Your task to perform on an android device: Show me recent news Image 0: 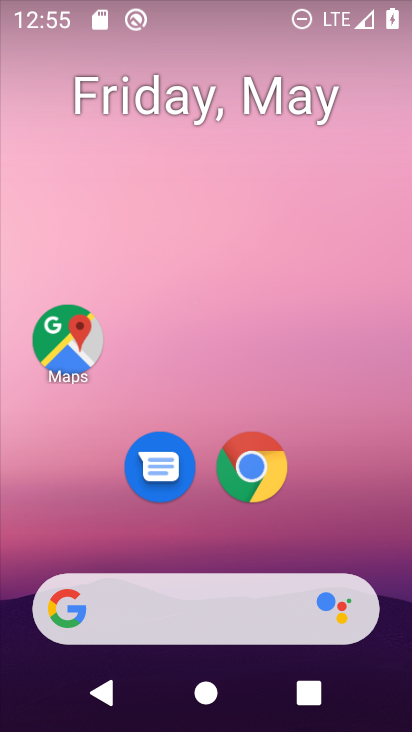
Step 0: drag from (279, 569) to (333, 34)
Your task to perform on an android device: Show me recent news Image 1: 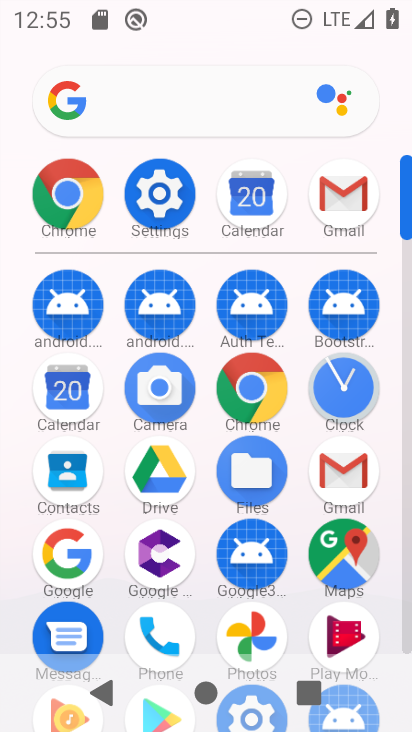
Step 1: click (251, 386)
Your task to perform on an android device: Show me recent news Image 2: 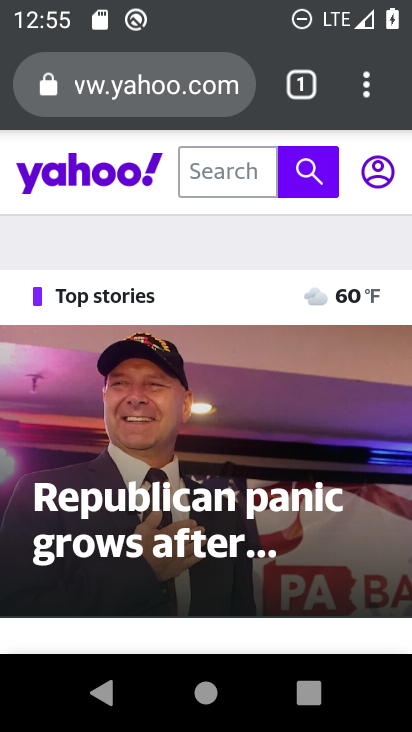
Step 2: type "recent news"
Your task to perform on an android device: Show me recent news Image 3: 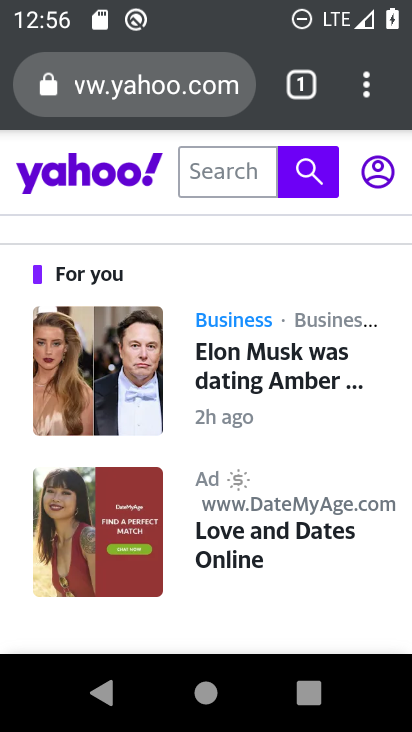
Step 3: type "recent news"
Your task to perform on an android device: Show me recent news Image 4: 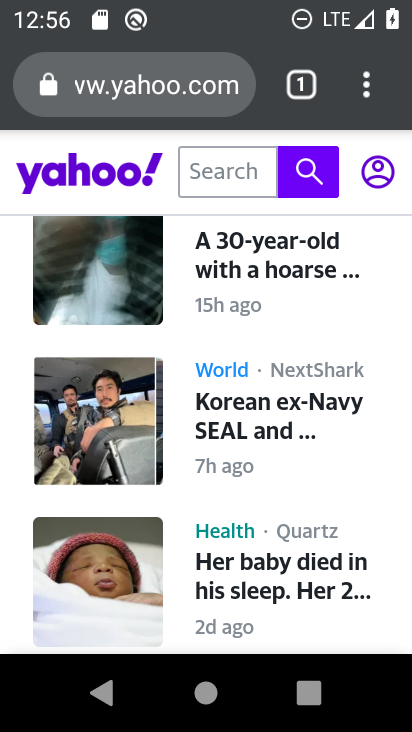
Step 4: click (110, 99)
Your task to perform on an android device: Show me recent news Image 5: 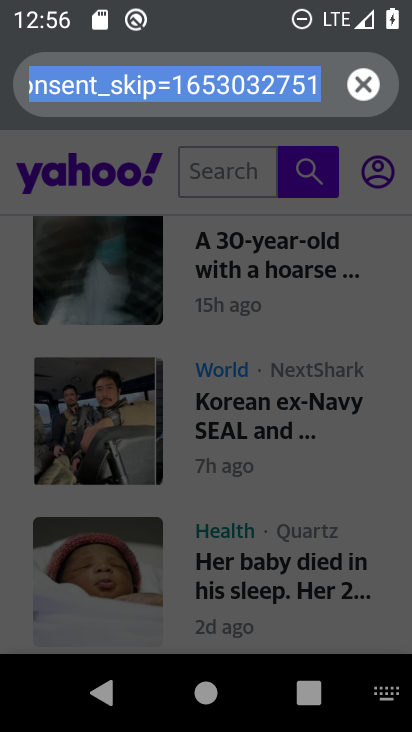
Step 5: click (370, 86)
Your task to perform on an android device: Show me recent news Image 6: 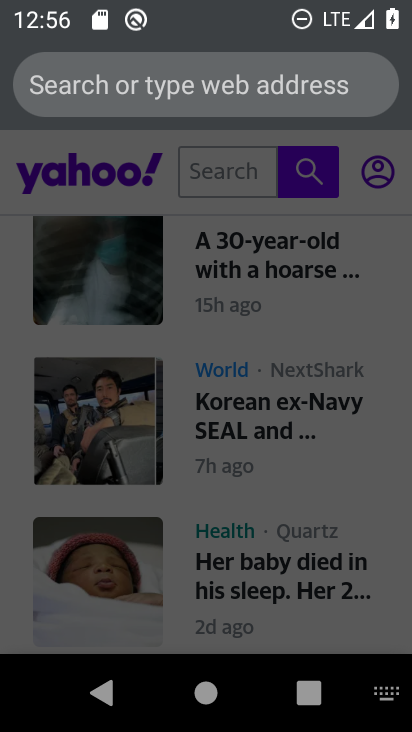
Step 6: type "recent news"
Your task to perform on an android device: Show me recent news Image 7: 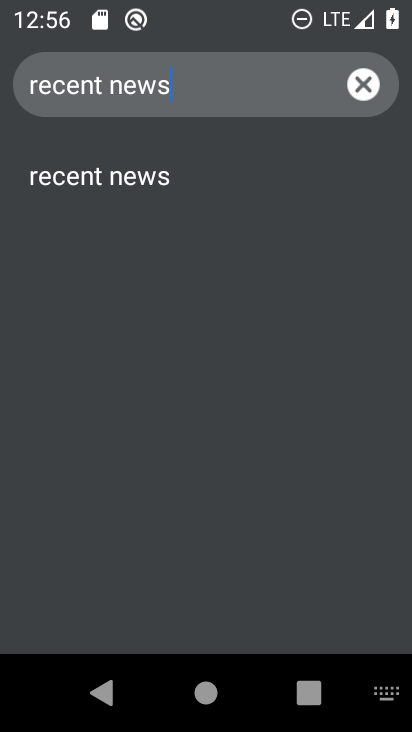
Step 7: click (232, 178)
Your task to perform on an android device: Show me recent news Image 8: 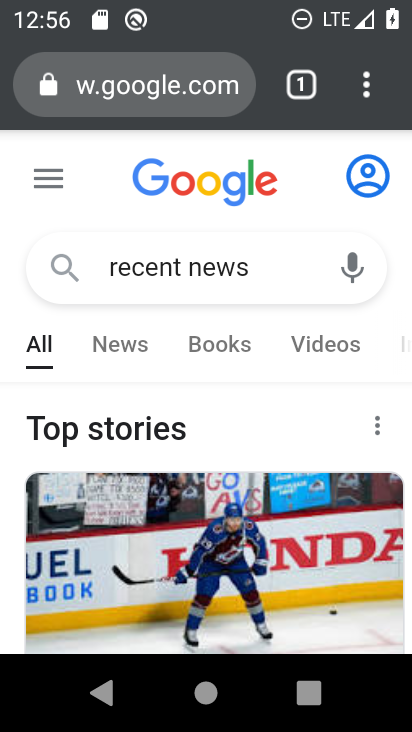
Step 8: task complete